Your task to perform on an android device: toggle notification dots Image 0: 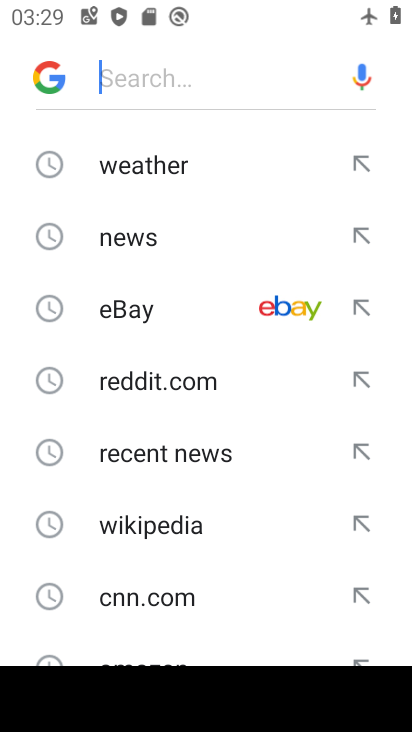
Step 0: press back button
Your task to perform on an android device: toggle notification dots Image 1: 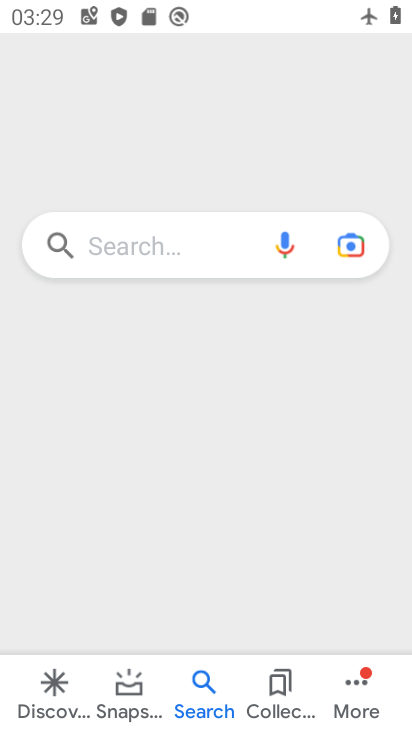
Step 1: press back button
Your task to perform on an android device: toggle notification dots Image 2: 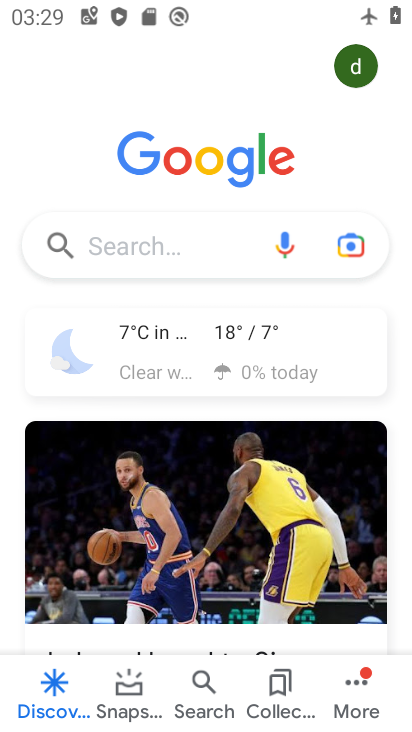
Step 2: press back button
Your task to perform on an android device: toggle notification dots Image 3: 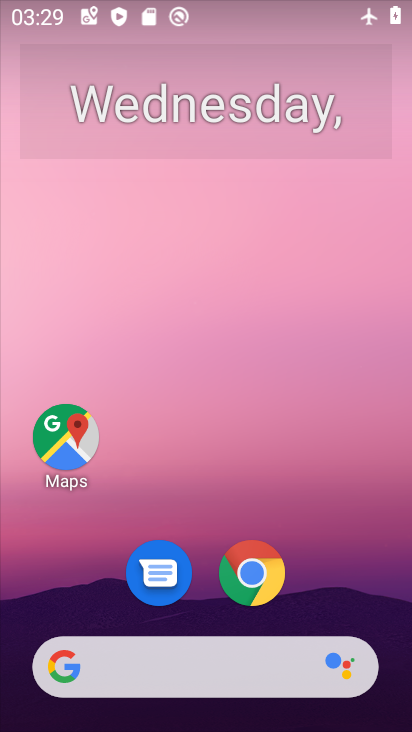
Step 3: drag from (290, 547) to (261, 6)
Your task to perform on an android device: toggle notification dots Image 4: 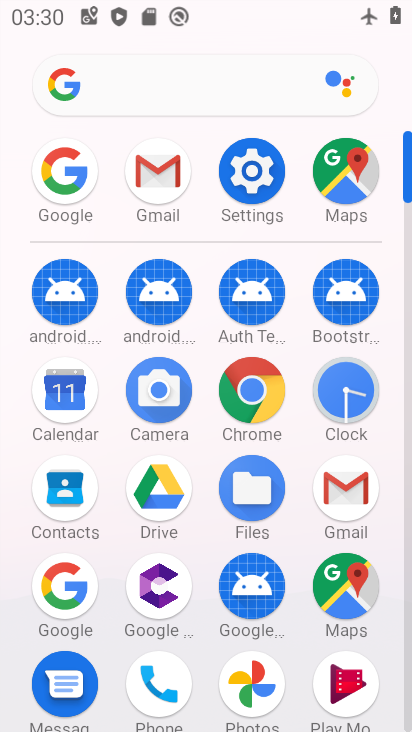
Step 4: click (249, 171)
Your task to perform on an android device: toggle notification dots Image 5: 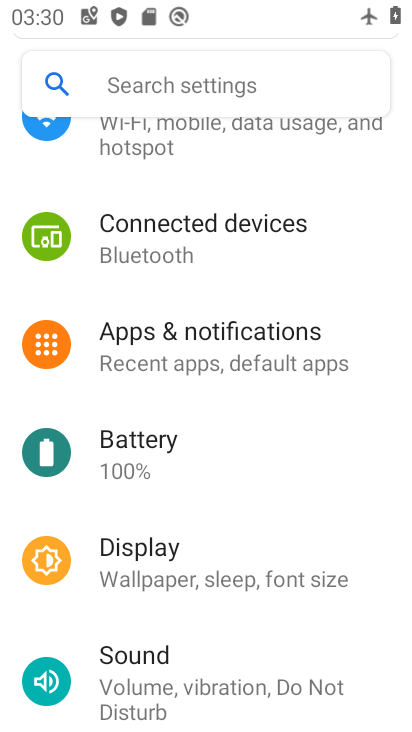
Step 5: click (193, 339)
Your task to perform on an android device: toggle notification dots Image 6: 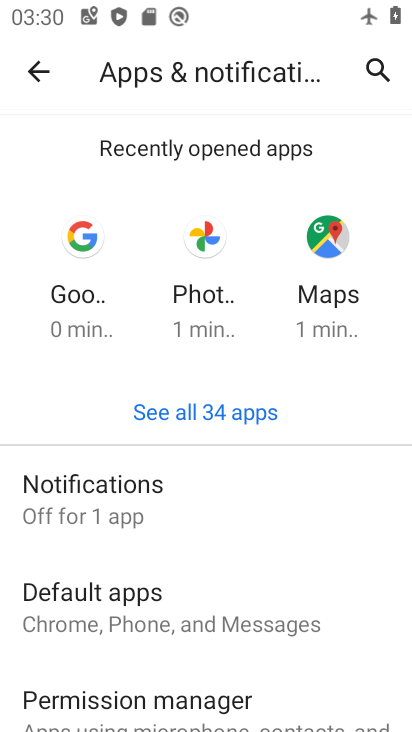
Step 6: click (106, 487)
Your task to perform on an android device: toggle notification dots Image 7: 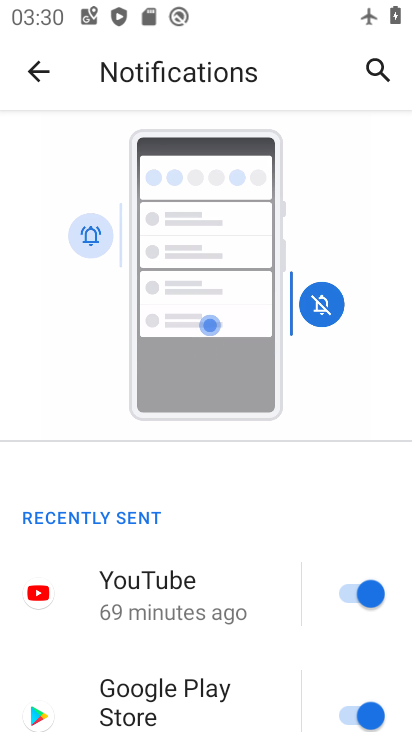
Step 7: drag from (180, 524) to (234, 401)
Your task to perform on an android device: toggle notification dots Image 8: 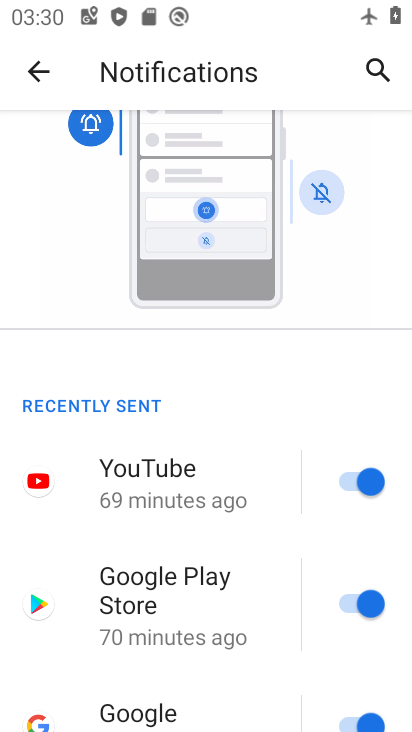
Step 8: drag from (186, 529) to (246, 400)
Your task to perform on an android device: toggle notification dots Image 9: 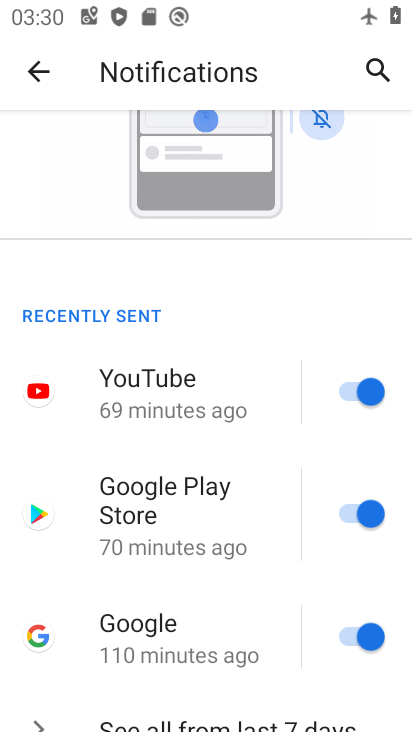
Step 9: drag from (185, 456) to (221, 361)
Your task to perform on an android device: toggle notification dots Image 10: 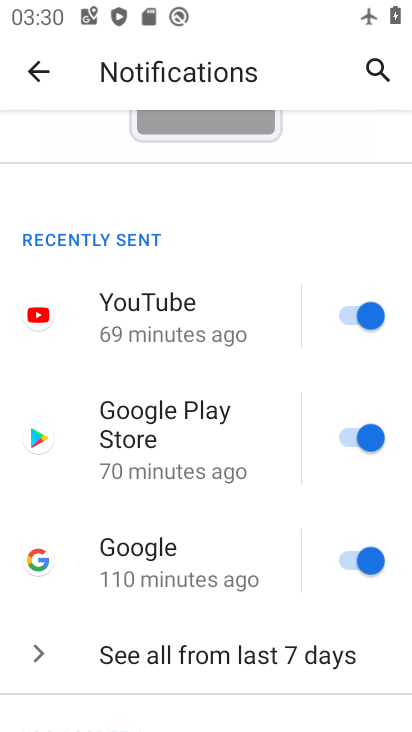
Step 10: drag from (139, 500) to (187, 419)
Your task to perform on an android device: toggle notification dots Image 11: 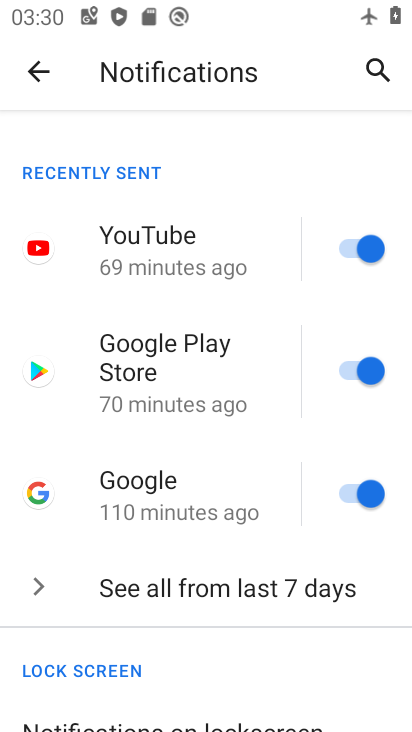
Step 11: drag from (134, 548) to (202, 441)
Your task to perform on an android device: toggle notification dots Image 12: 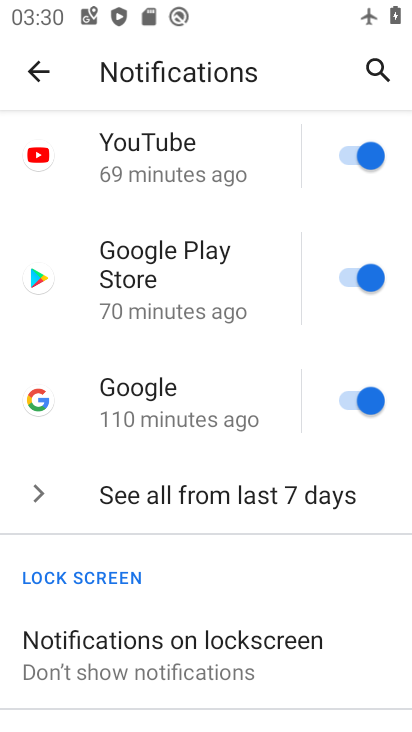
Step 12: drag from (160, 578) to (216, 462)
Your task to perform on an android device: toggle notification dots Image 13: 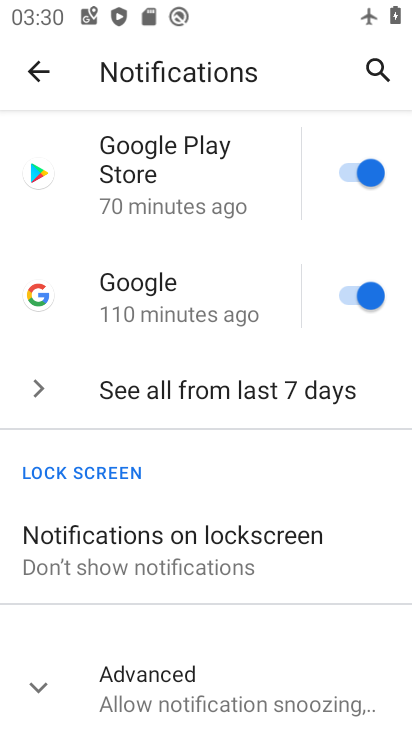
Step 13: drag from (180, 638) to (258, 524)
Your task to perform on an android device: toggle notification dots Image 14: 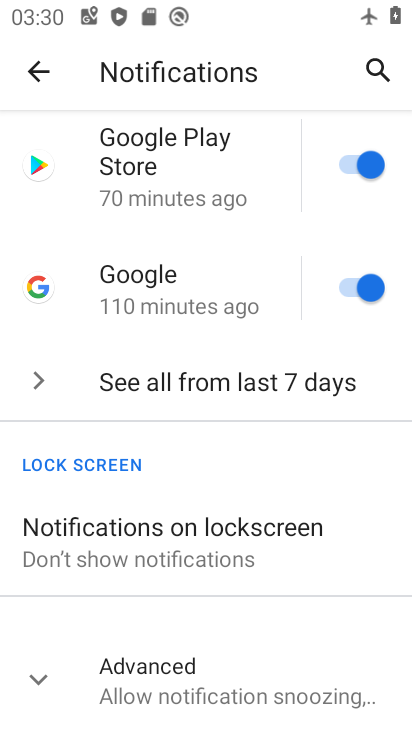
Step 14: click (146, 679)
Your task to perform on an android device: toggle notification dots Image 15: 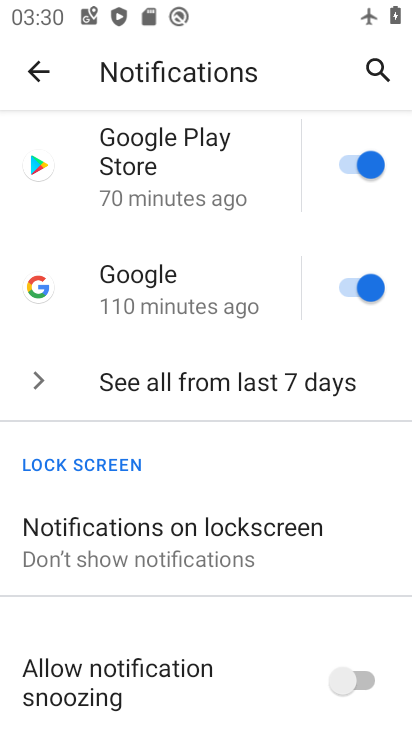
Step 15: drag from (195, 631) to (292, 506)
Your task to perform on an android device: toggle notification dots Image 16: 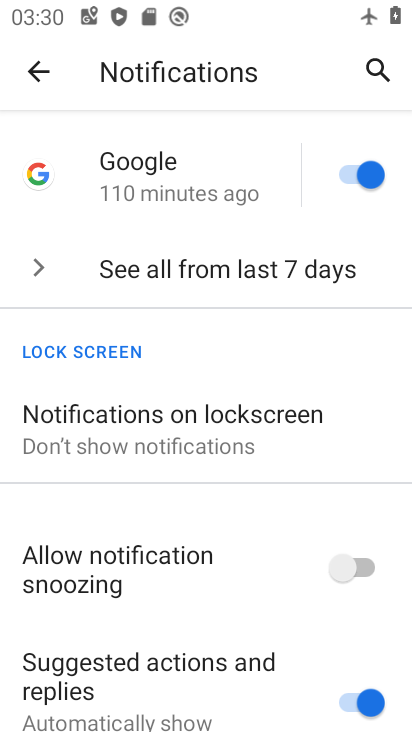
Step 16: drag from (233, 575) to (275, 526)
Your task to perform on an android device: toggle notification dots Image 17: 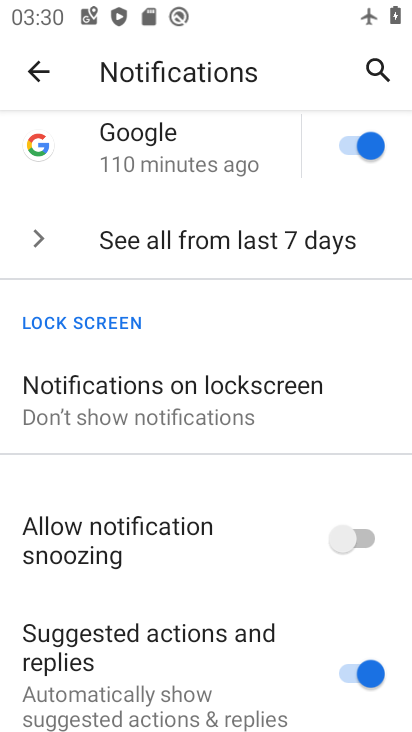
Step 17: drag from (203, 654) to (251, 528)
Your task to perform on an android device: toggle notification dots Image 18: 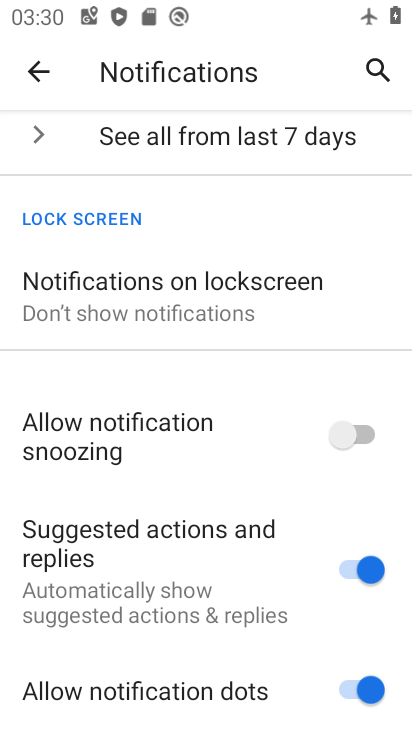
Step 18: click (361, 685)
Your task to perform on an android device: toggle notification dots Image 19: 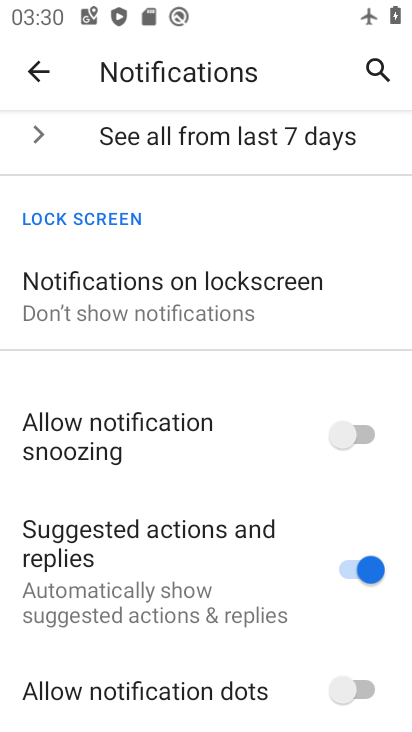
Step 19: task complete